Your task to perform on an android device: Open calendar and show me the second week of next month Image 0: 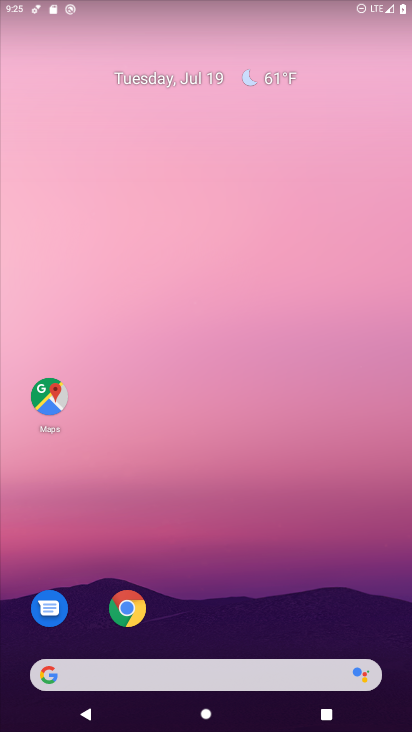
Step 0: drag from (241, 591) to (196, 137)
Your task to perform on an android device: Open calendar and show me the second week of next month Image 1: 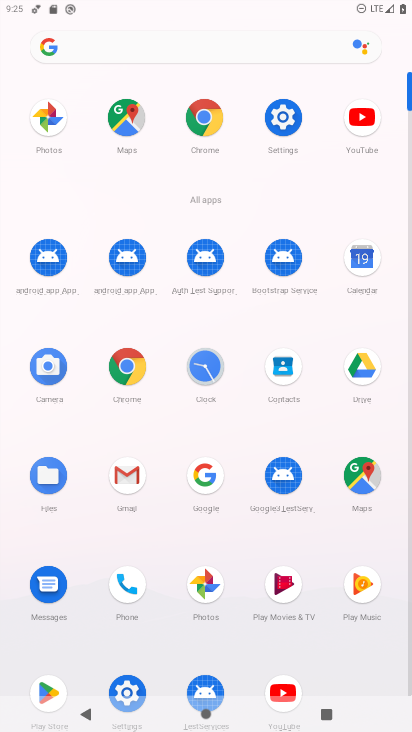
Step 1: click (359, 258)
Your task to perform on an android device: Open calendar and show me the second week of next month Image 2: 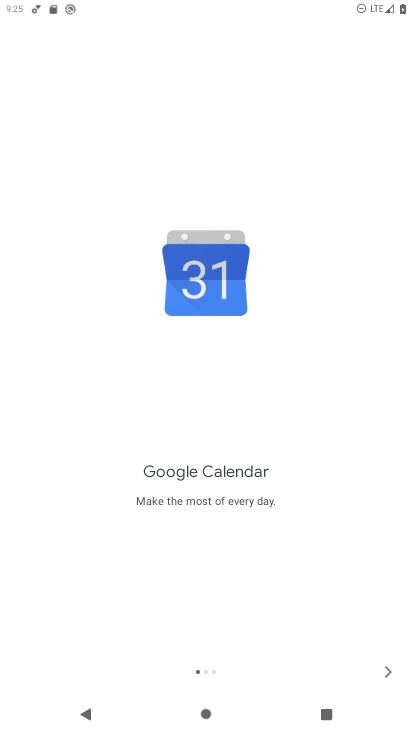
Step 2: click (388, 669)
Your task to perform on an android device: Open calendar and show me the second week of next month Image 3: 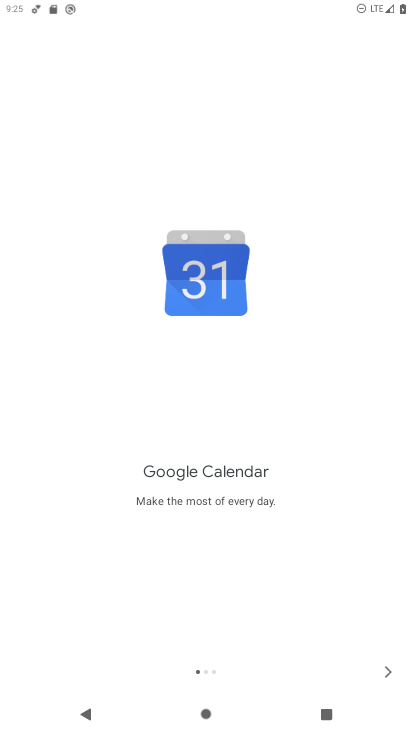
Step 3: click (388, 669)
Your task to perform on an android device: Open calendar and show me the second week of next month Image 4: 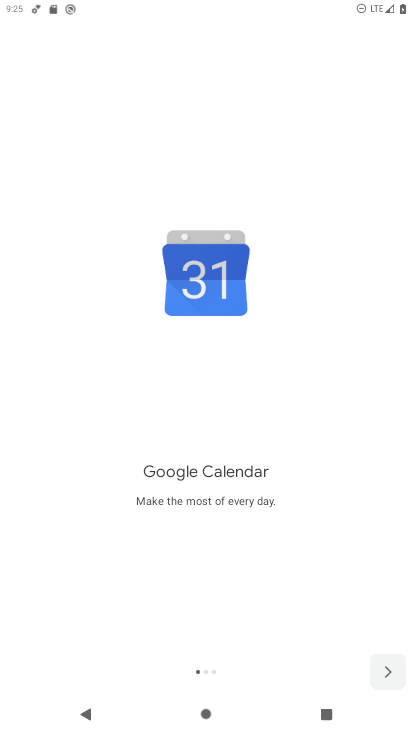
Step 4: click (388, 669)
Your task to perform on an android device: Open calendar and show me the second week of next month Image 5: 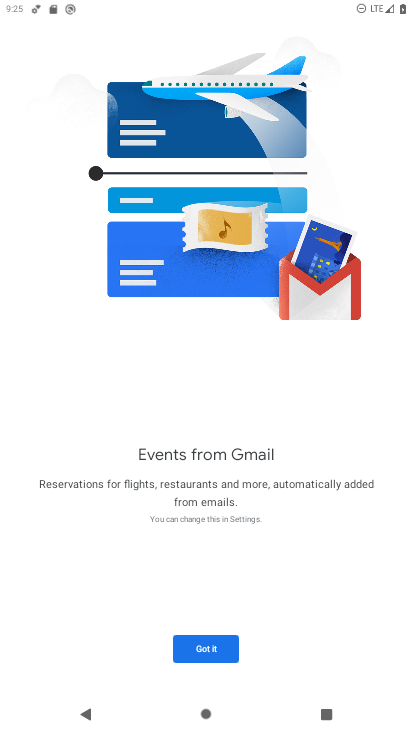
Step 5: click (219, 649)
Your task to perform on an android device: Open calendar and show me the second week of next month Image 6: 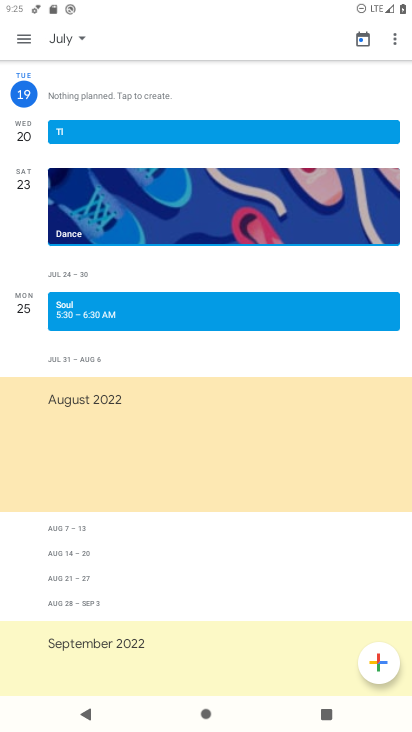
Step 6: click (23, 35)
Your task to perform on an android device: Open calendar and show me the second week of next month Image 7: 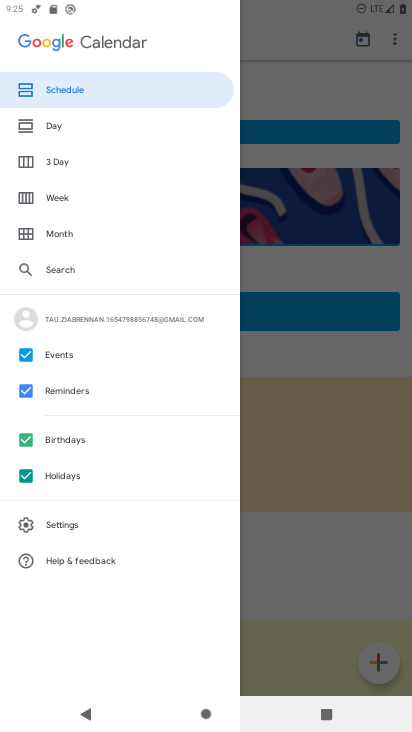
Step 7: click (54, 191)
Your task to perform on an android device: Open calendar and show me the second week of next month Image 8: 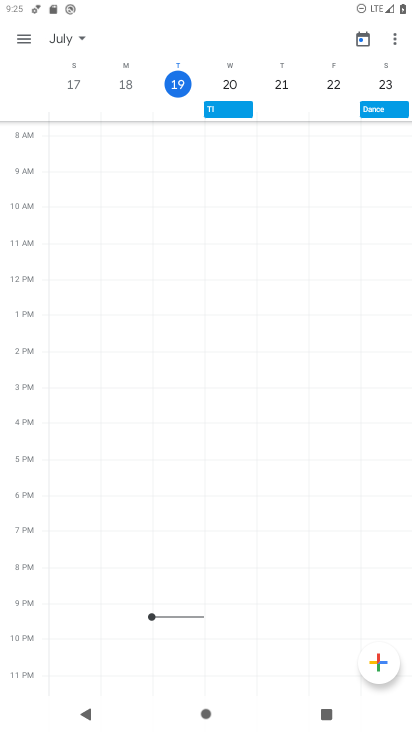
Step 8: click (78, 39)
Your task to perform on an android device: Open calendar and show me the second week of next month Image 9: 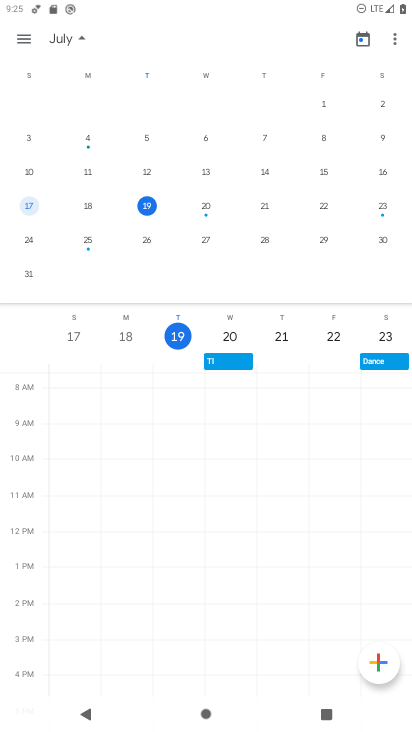
Step 9: drag from (381, 176) to (9, 168)
Your task to perform on an android device: Open calendar and show me the second week of next month Image 10: 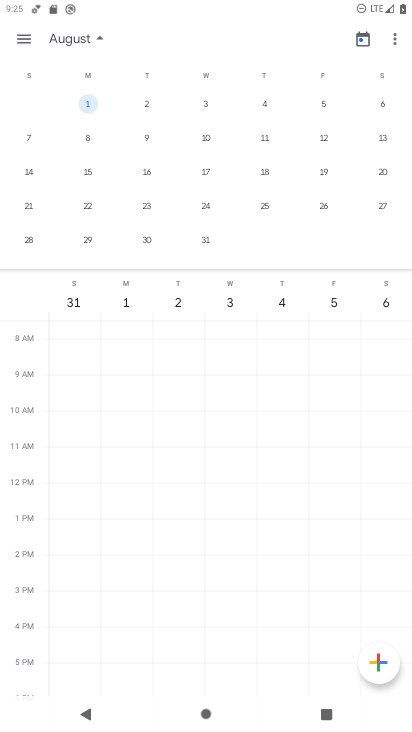
Step 10: click (89, 135)
Your task to perform on an android device: Open calendar and show me the second week of next month Image 11: 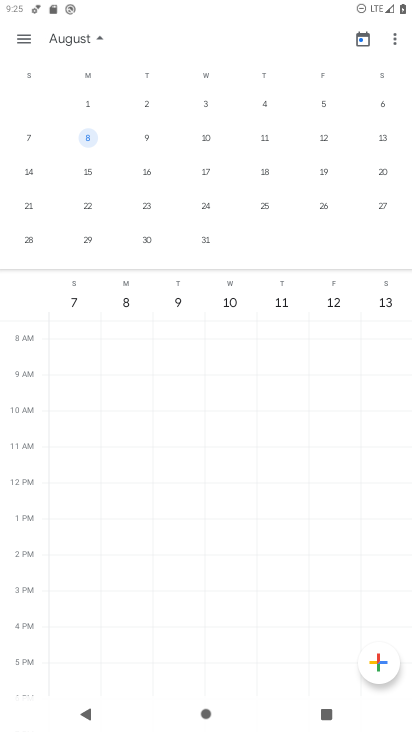
Step 11: task complete